Your task to perform on an android device: find which apps use the phone's location Image 0: 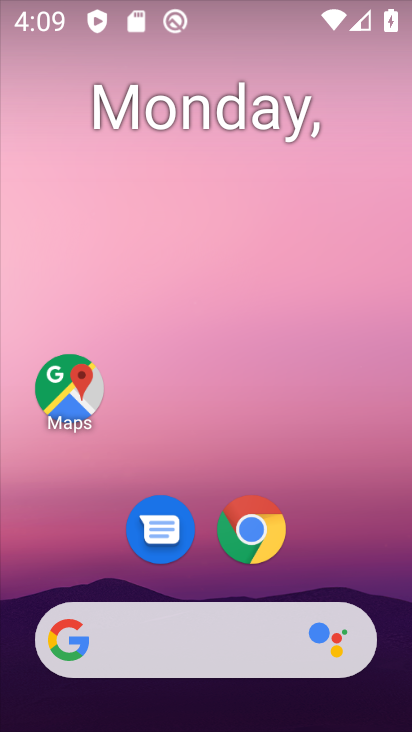
Step 0: drag from (206, 559) to (319, 28)
Your task to perform on an android device: find which apps use the phone's location Image 1: 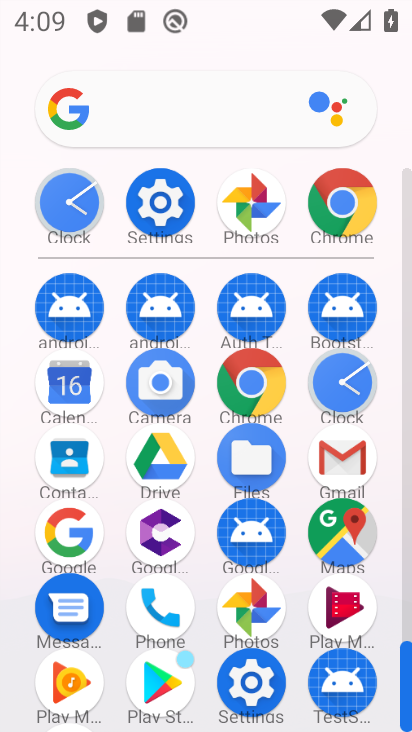
Step 1: click (166, 203)
Your task to perform on an android device: find which apps use the phone's location Image 2: 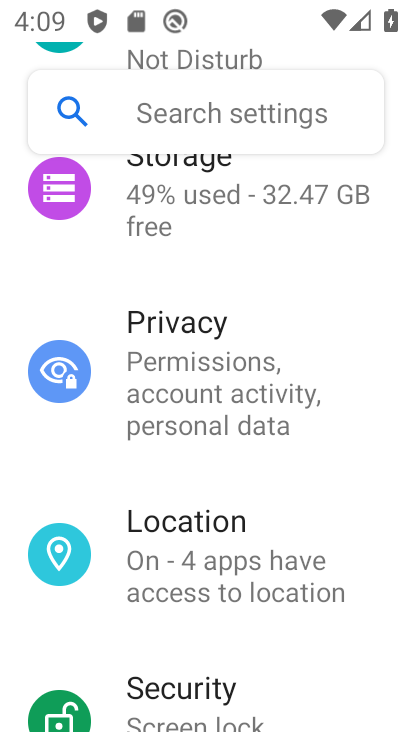
Step 2: click (214, 561)
Your task to perform on an android device: find which apps use the phone's location Image 3: 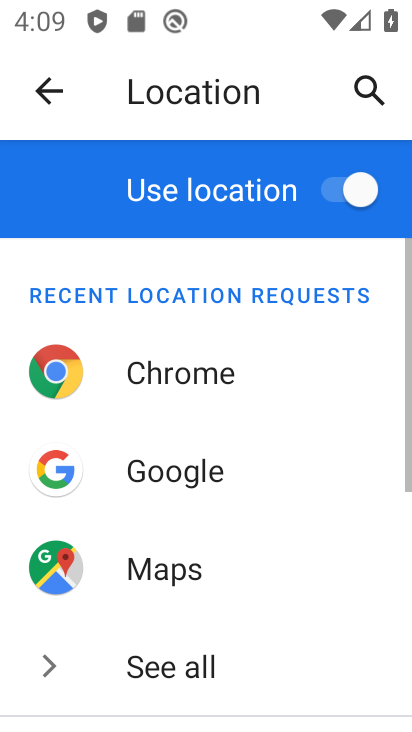
Step 3: drag from (199, 631) to (224, 335)
Your task to perform on an android device: find which apps use the phone's location Image 4: 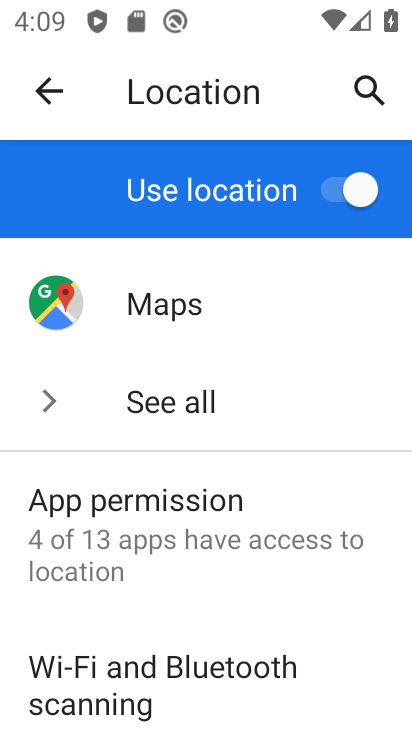
Step 4: click (146, 552)
Your task to perform on an android device: find which apps use the phone's location Image 5: 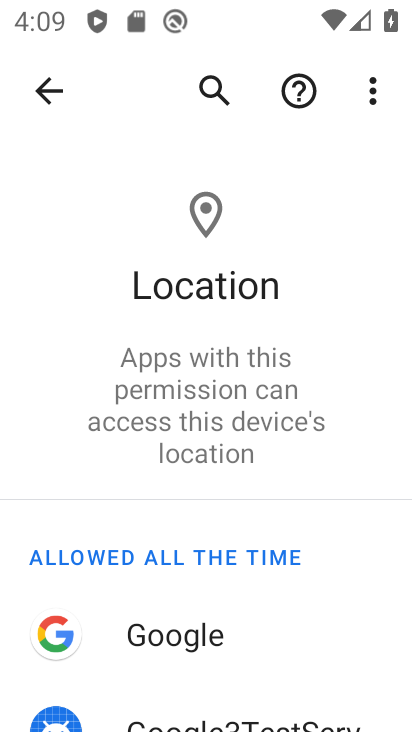
Step 5: task complete